Your task to perform on an android device: turn on the 12-hour format for clock Image 0: 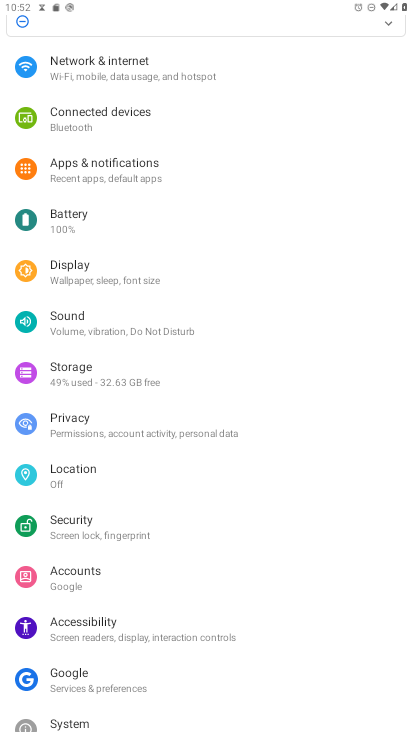
Step 0: press home button
Your task to perform on an android device: turn on the 12-hour format for clock Image 1: 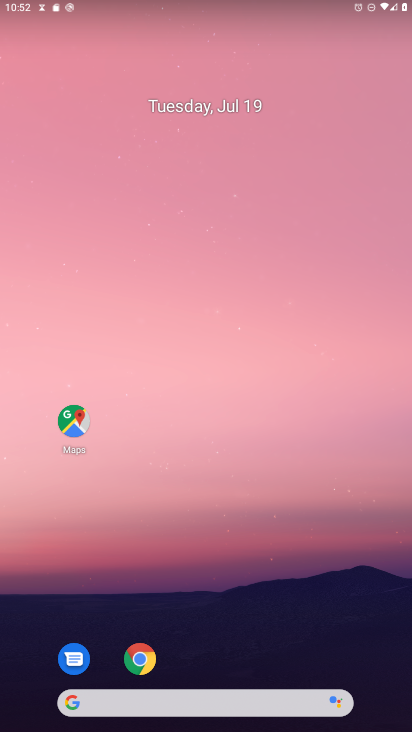
Step 1: drag from (227, 590) to (149, 34)
Your task to perform on an android device: turn on the 12-hour format for clock Image 2: 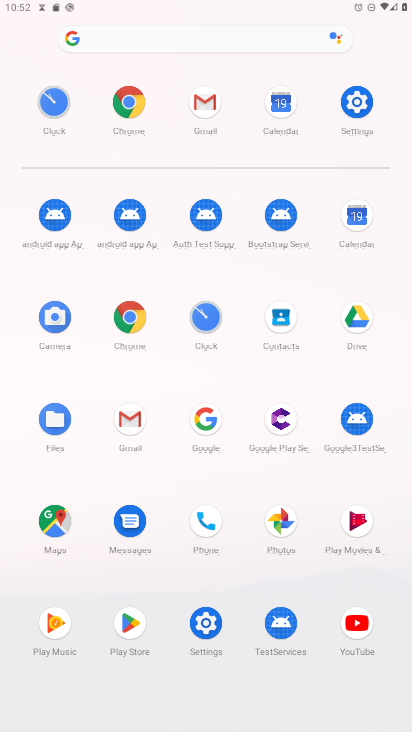
Step 2: click (211, 308)
Your task to perform on an android device: turn on the 12-hour format for clock Image 3: 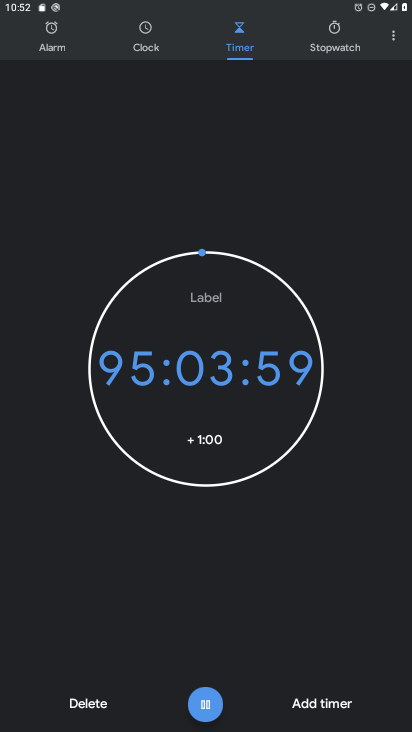
Step 3: click (388, 31)
Your task to perform on an android device: turn on the 12-hour format for clock Image 4: 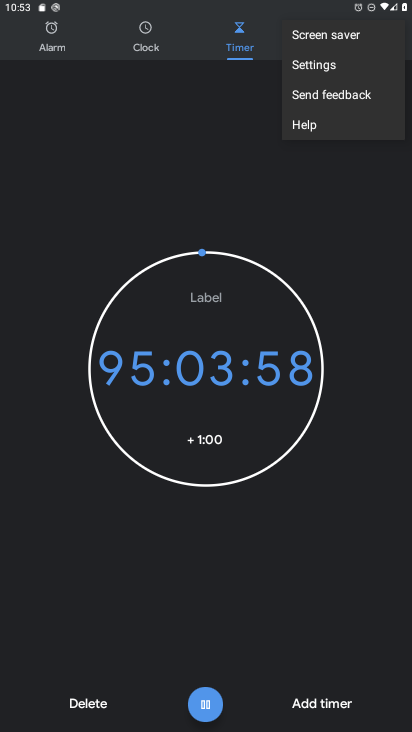
Step 4: click (320, 68)
Your task to perform on an android device: turn on the 12-hour format for clock Image 5: 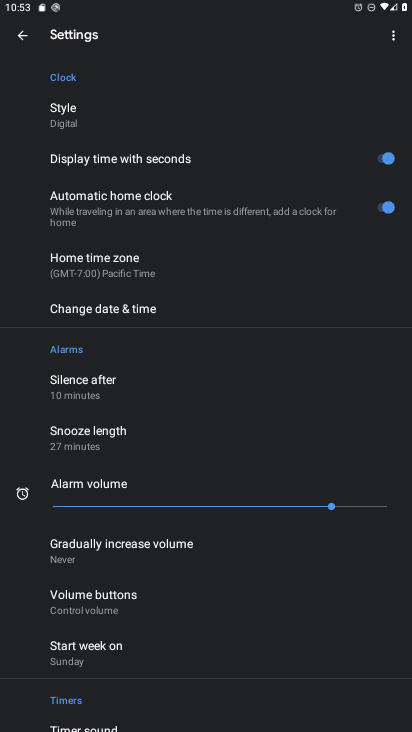
Step 5: click (143, 311)
Your task to perform on an android device: turn on the 12-hour format for clock Image 6: 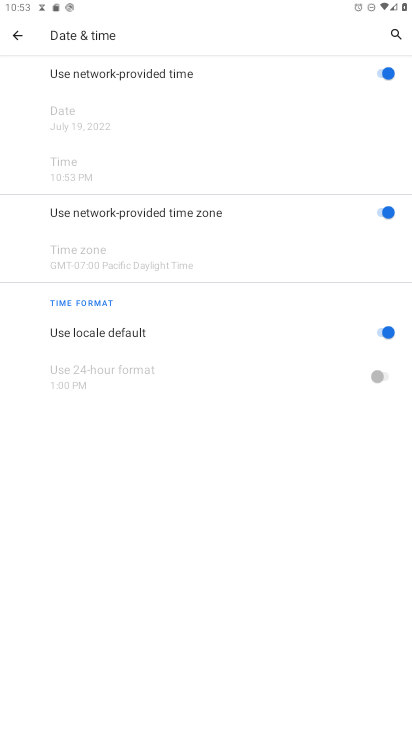
Step 6: click (375, 329)
Your task to perform on an android device: turn on the 12-hour format for clock Image 7: 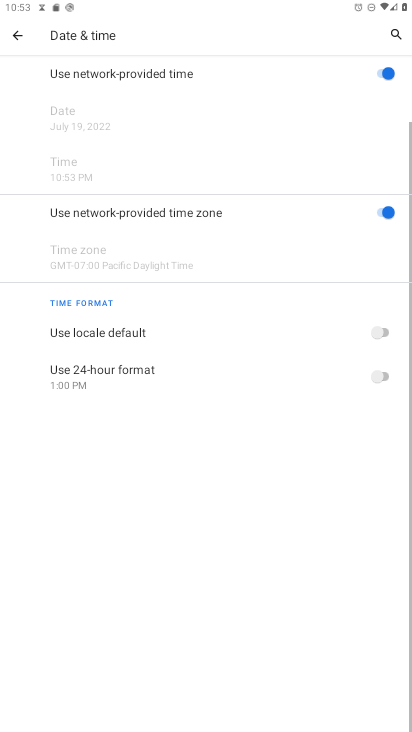
Step 7: click (381, 379)
Your task to perform on an android device: turn on the 12-hour format for clock Image 8: 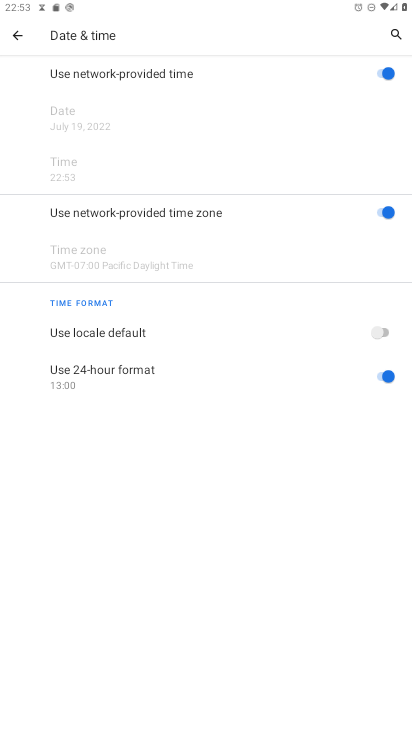
Step 8: task complete